Your task to perform on an android device: open a bookmark in the chrome app Image 0: 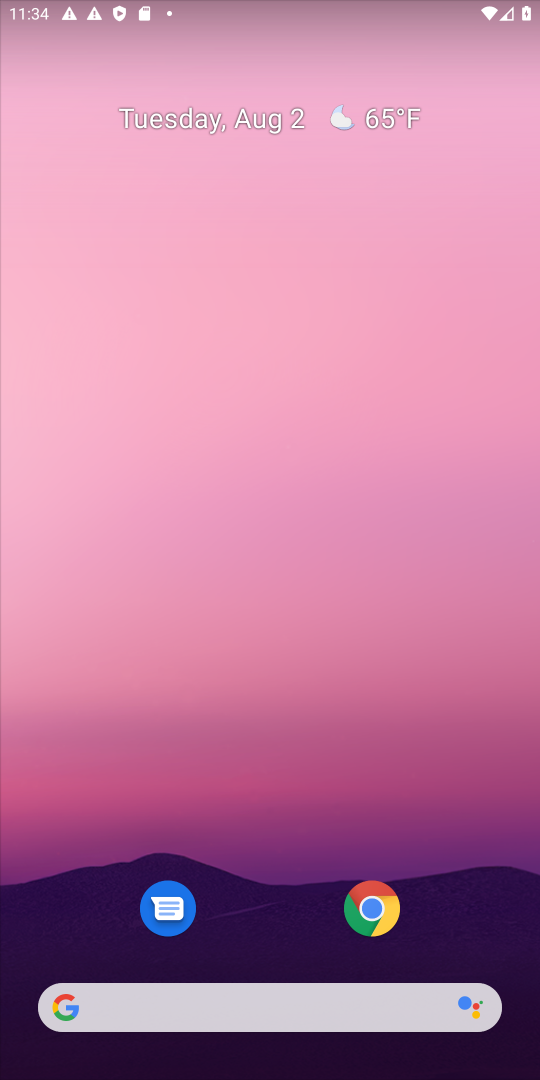
Step 0: click (372, 899)
Your task to perform on an android device: open a bookmark in the chrome app Image 1: 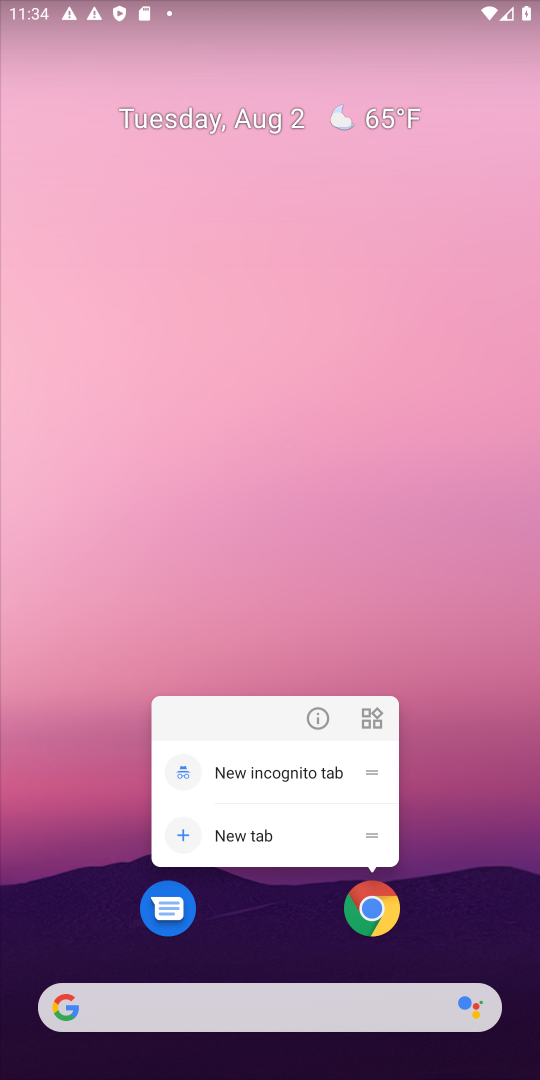
Step 1: click (371, 894)
Your task to perform on an android device: open a bookmark in the chrome app Image 2: 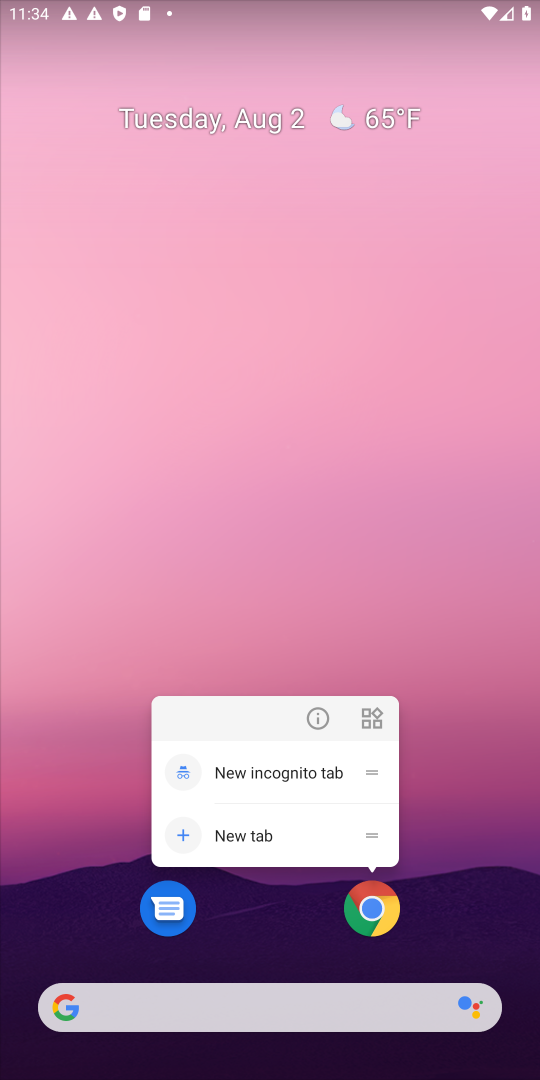
Step 2: click (369, 902)
Your task to perform on an android device: open a bookmark in the chrome app Image 3: 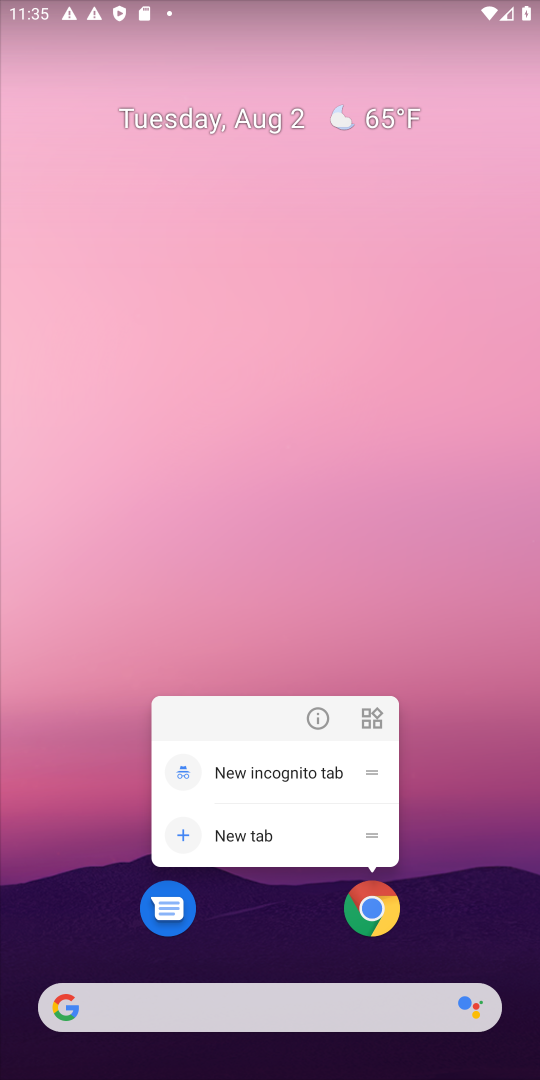
Step 3: click (370, 902)
Your task to perform on an android device: open a bookmark in the chrome app Image 4: 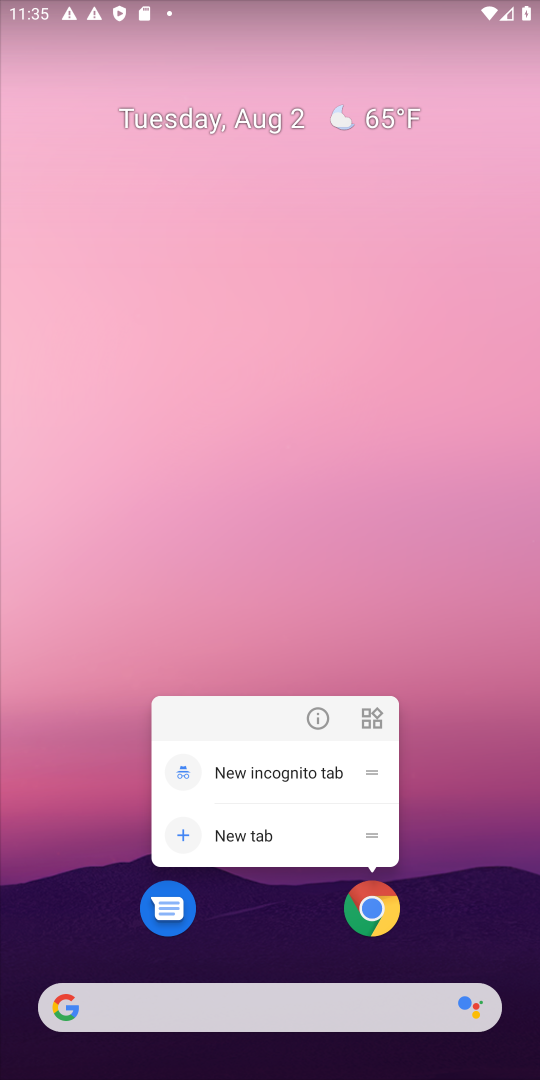
Step 4: click (457, 946)
Your task to perform on an android device: open a bookmark in the chrome app Image 5: 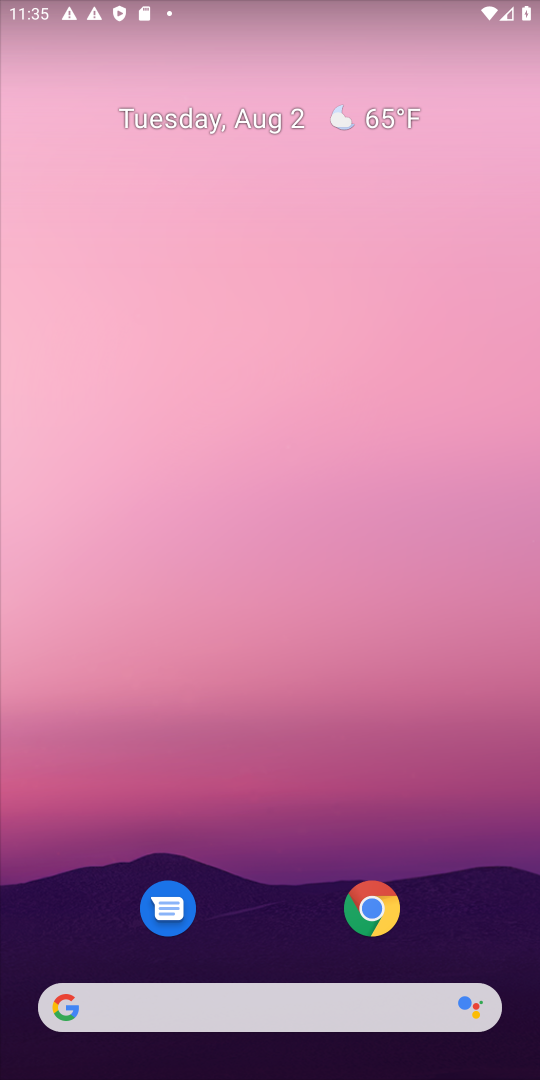
Step 5: drag from (442, 952) to (457, 134)
Your task to perform on an android device: open a bookmark in the chrome app Image 6: 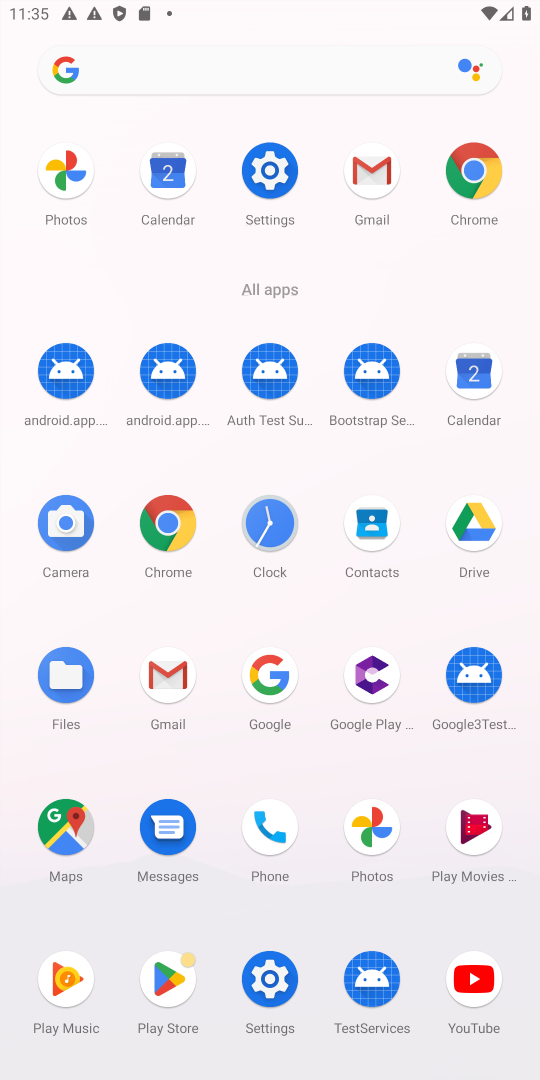
Step 6: click (160, 515)
Your task to perform on an android device: open a bookmark in the chrome app Image 7: 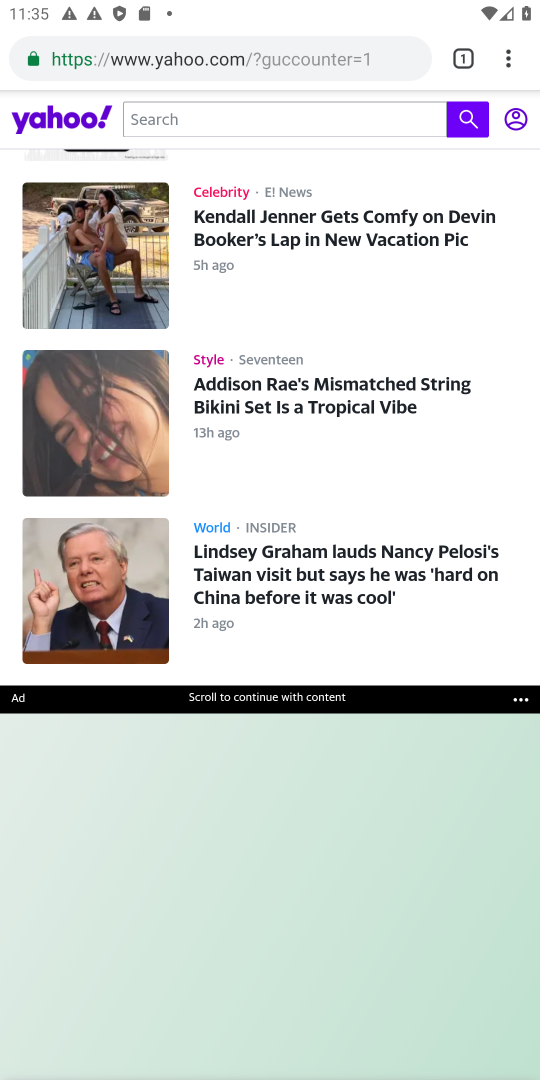
Step 7: click (507, 58)
Your task to perform on an android device: open a bookmark in the chrome app Image 8: 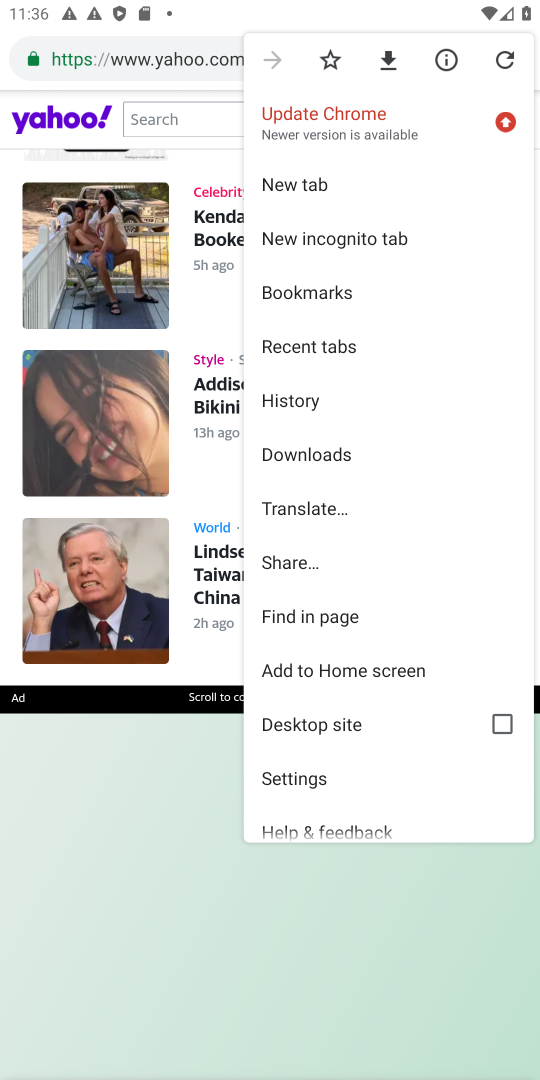
Step 8: click (301, 296)
Your task to perform on an android device: open a bookmark in the chrome app Image 9: 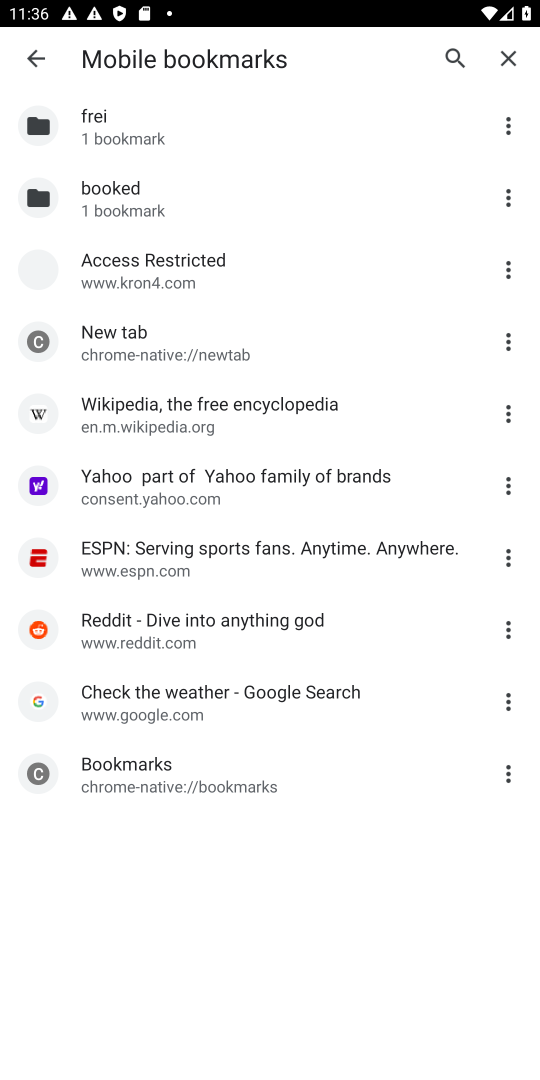
Step 9: click (155, 489)
Your task to perform on an android device: open a bookmark in the chrome app Image 10: 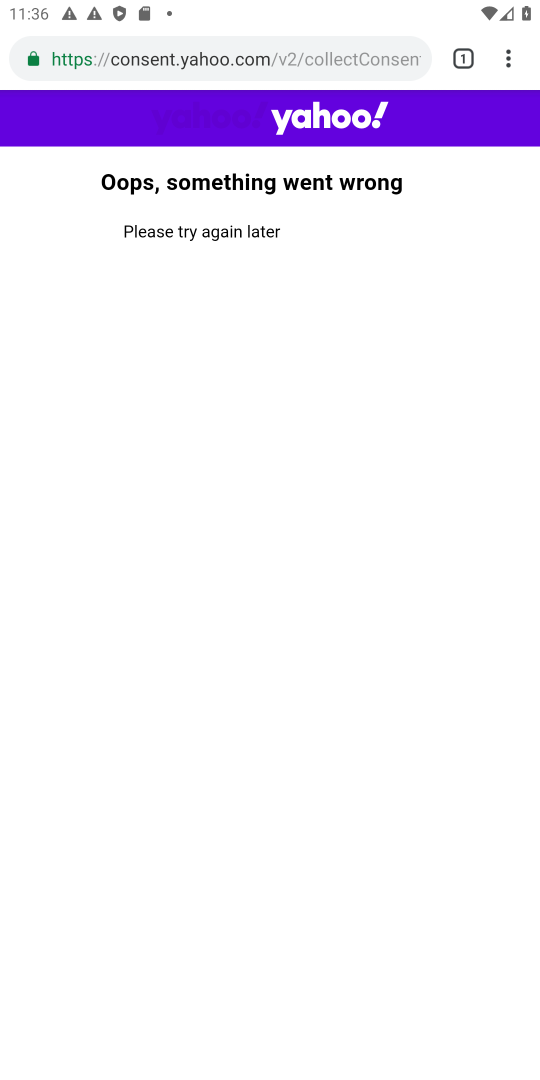
Step 10: task complete